Your task to perform on an android device: Is it going to rain today? Image 0: 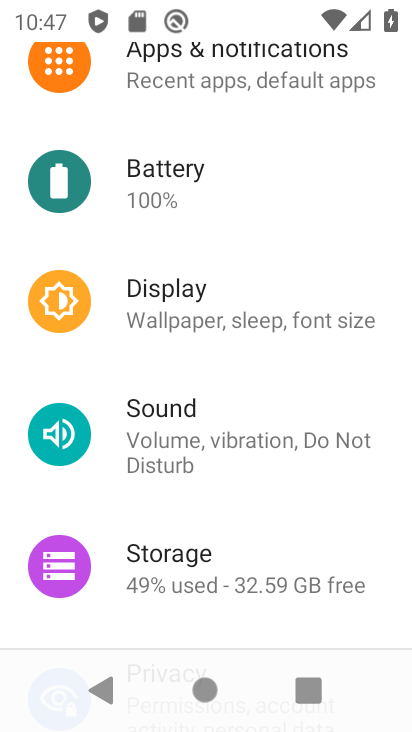
Step 0: press home button
Your task to perform on an android device: Is it going to rain today? Image 1: 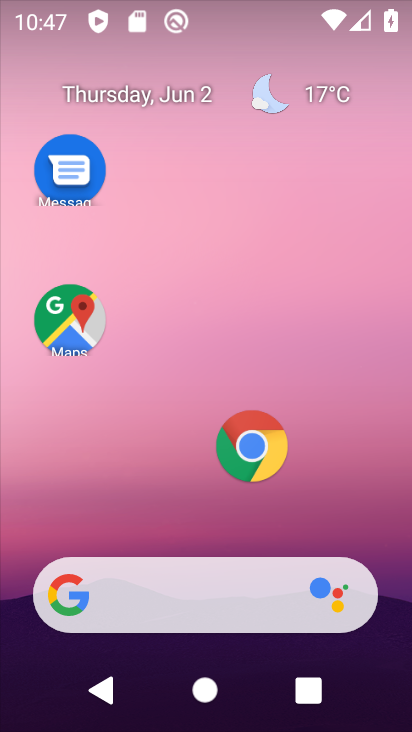
Step 1: drag from (204, 526) to (195, 3)
Your task to perform on an android device: Is it going to rain today? Image 2: 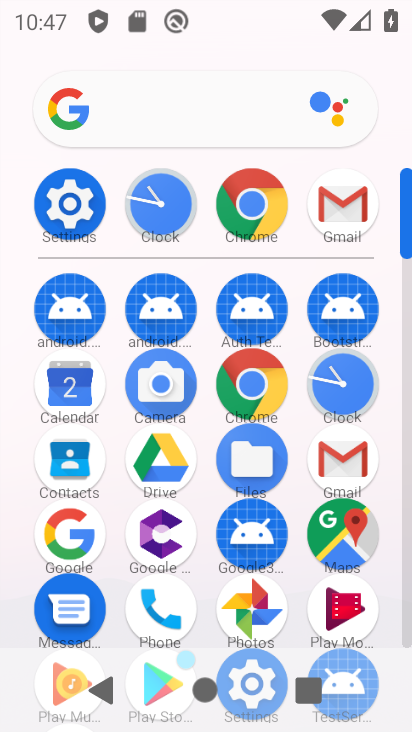
Step 2: click (256, 227)
Your task to perform on an android device: Is it going to rain today? Image 3: 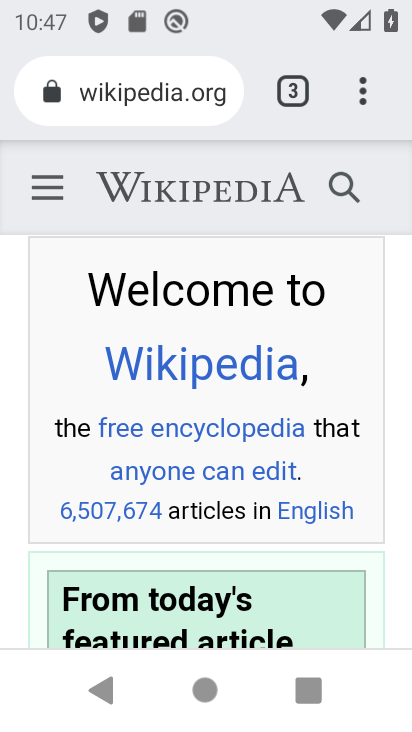
Step 3: click (180, 89)
Your task to perform on an android device: Is it going to rain today? Image 4: 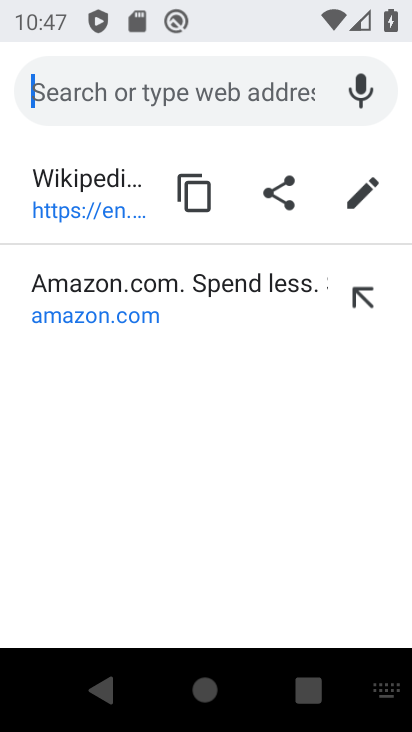
Step 4: type "Is it going to rain today?"
Your task to perform on an android device: Is it going to rain today? Image 5: 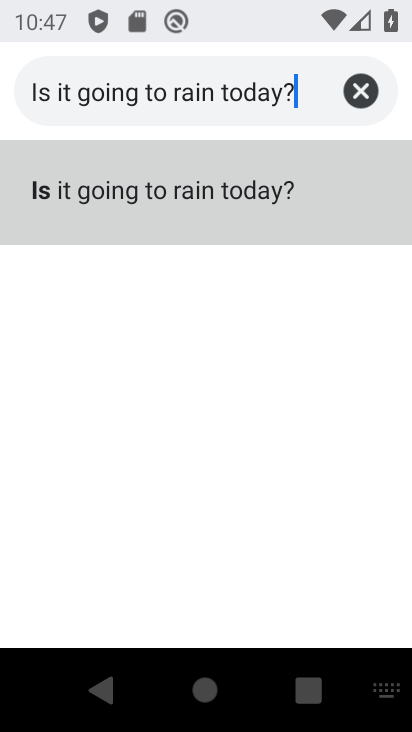
Step 5: type ""
Your task to perform on an android device: Is it going to rain today? Image 6: 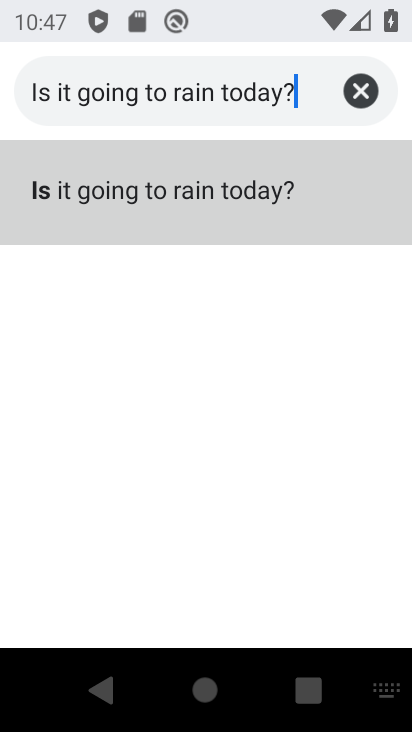
Step 6: click (110, 187)
Your task to perform on an android device: Is it going to rain today? Image 7: 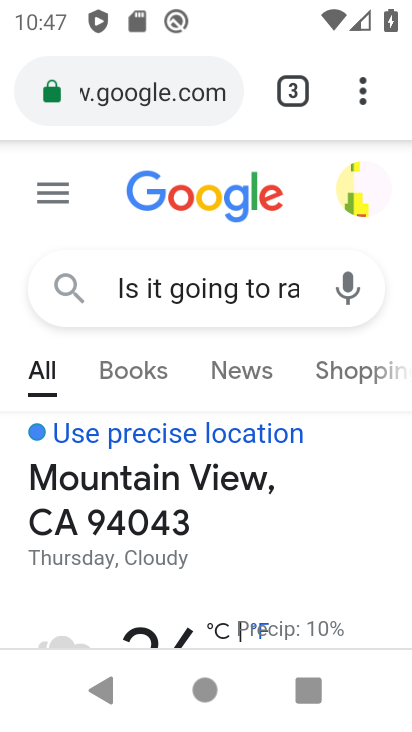
Step 7: task complete